Your task to perform on an android device: View the shopping cart on costco. Image 0: 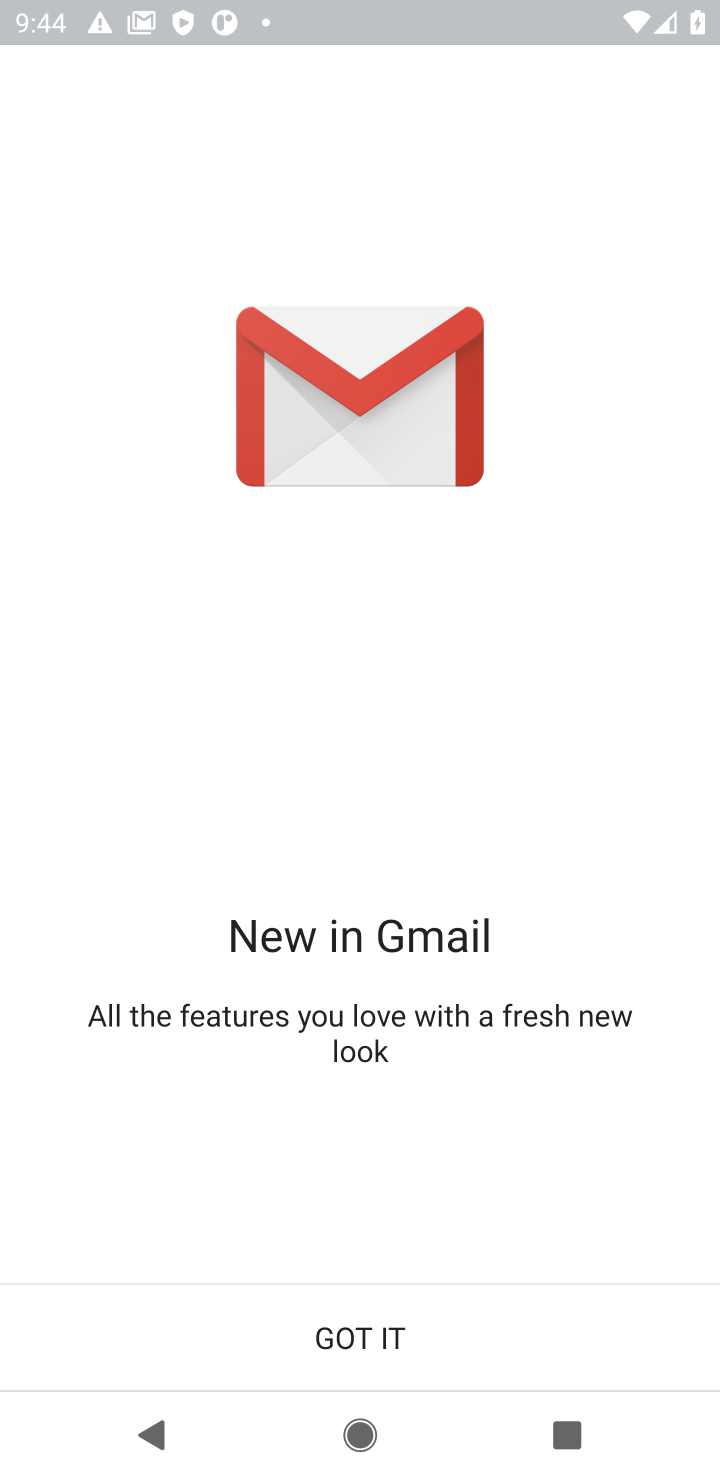
Step 0: press home button
Your task to perform on an android device: View the shopping cart on costco. Image 1: 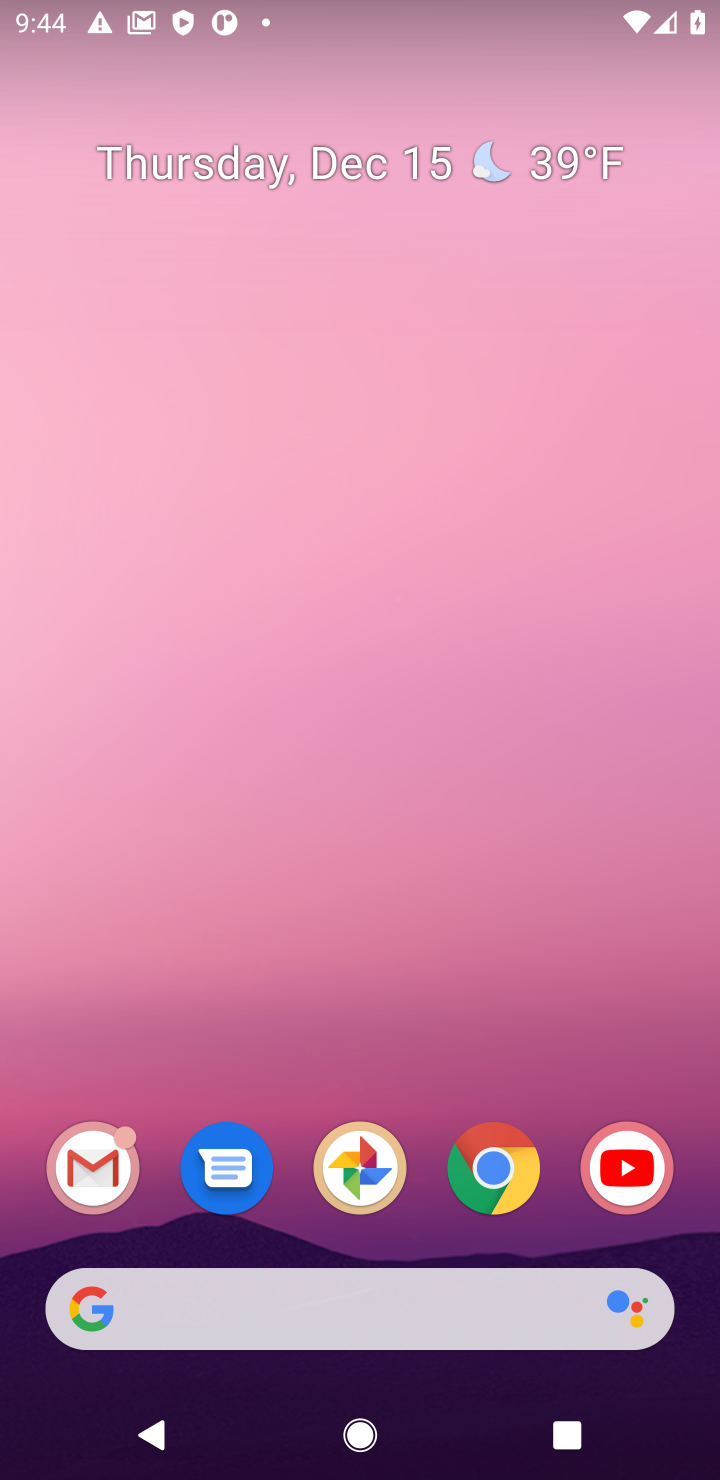
Step 1: click (499, 1171)
Your task to perform on an android device: View the shopping cart on costco. Image 2: 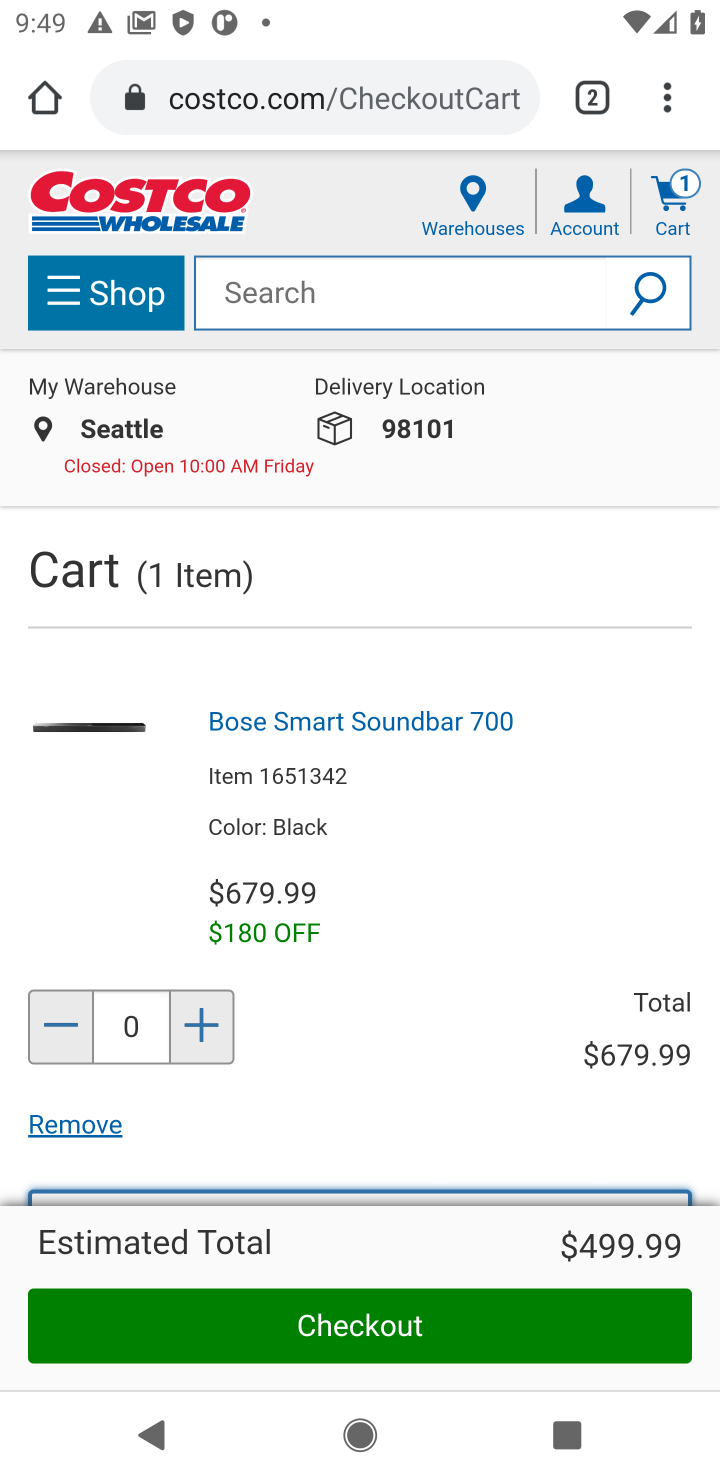
Step 2: task complete